Your task to perform on an android device: Search for seafood restaurants on Google Maps Image 0: 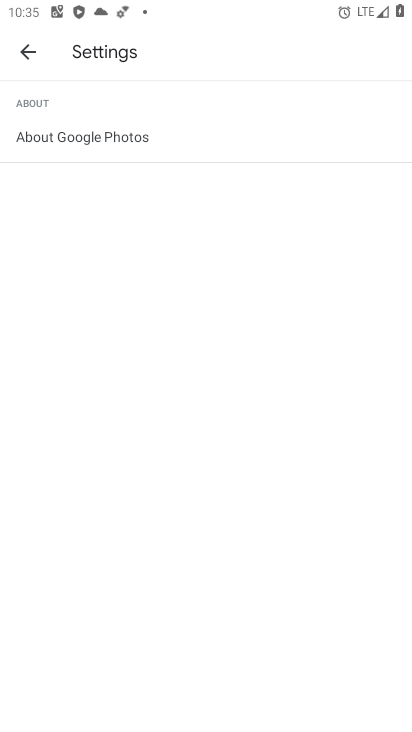
Step 0: press home button
Your task to perform on an android device: Search for seafood restaurants on Google Maps Image 1: 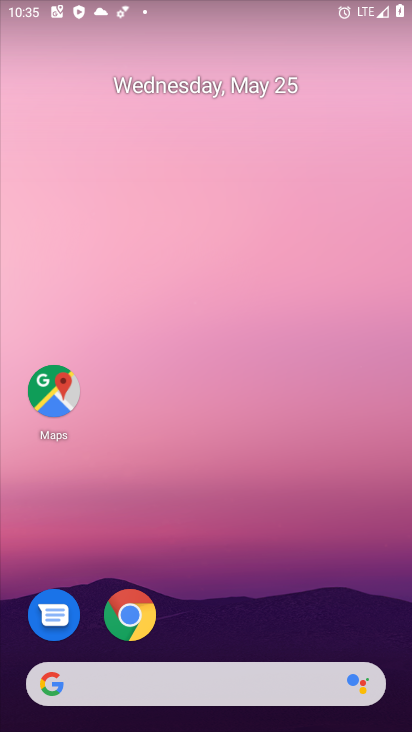
Step 1: click (51, 403)
Your task to perform on an android device: Search for seafood restaurants on Google Maps Image 2: 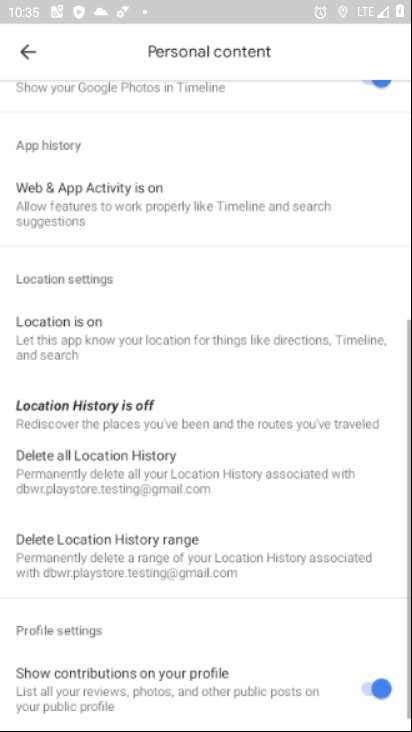
Step 2: click (26, 46)
Your task to perform on an android device: Search for seafood restaurants on Google Maps Image 3: 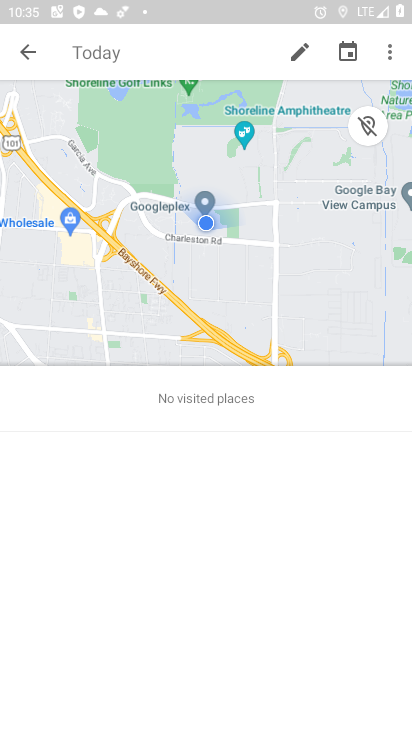
Step 3: click (26, 47)
Your task to perform on an android device: Search for seafood restaurants on Google Maps Image 4: 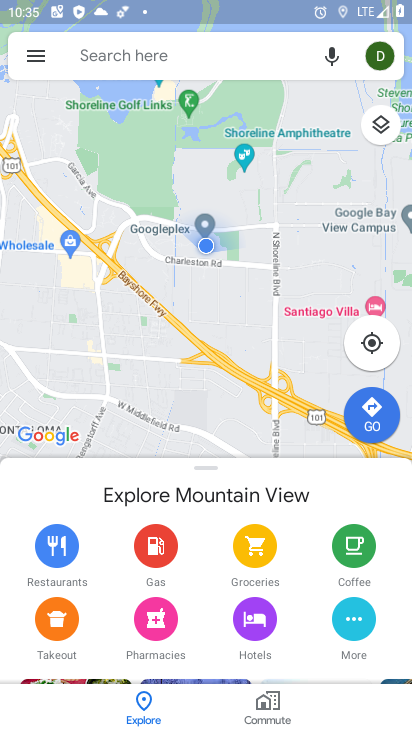
Step 4: click (130, 49)
Your task to perform on an android device: Search for seafood restaurants on Google Maps Image 5: 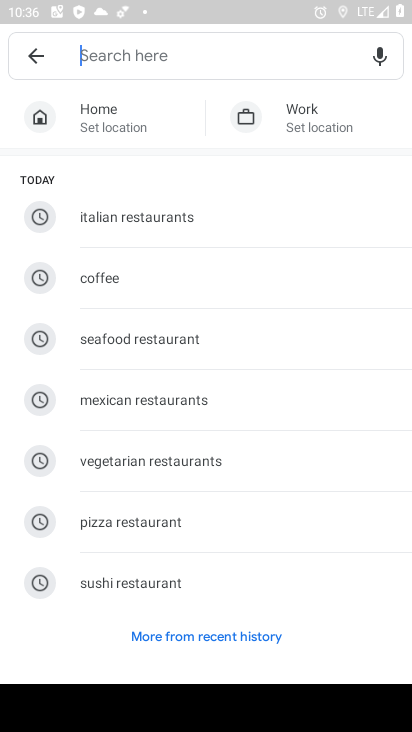
Step 5: click (186, 335)
Your task to perform on an android device: Search for seafood restaurants on Google Maps Image 6: 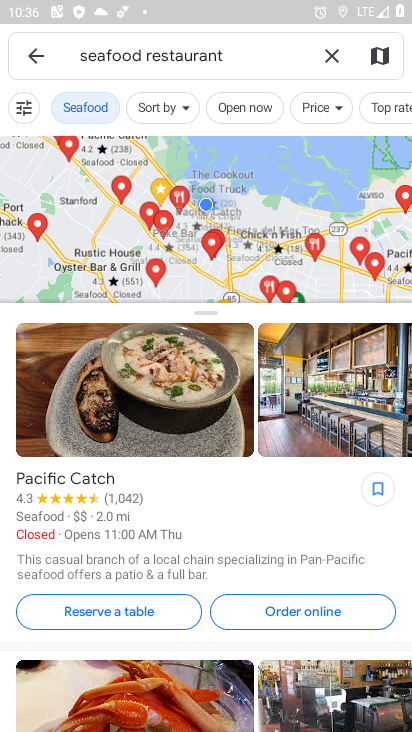
Step 6: task complete